Your task to perform on an android device: Go to wifi settings Image 0: 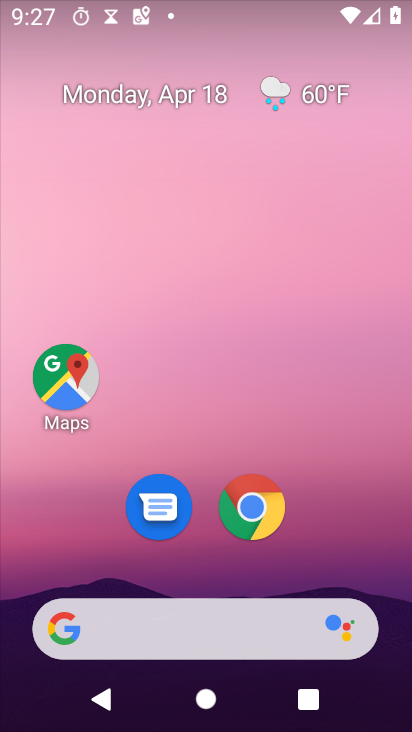
Step 0: drag from (310, 553) to (376, 8)
Your task to perform on an android device: Go to wifi settings Image 1: 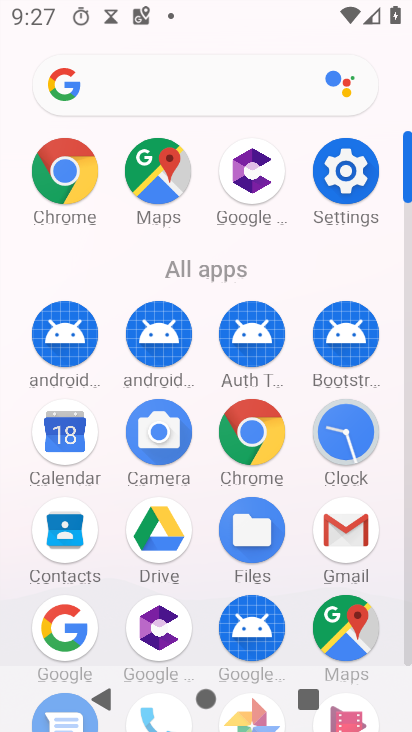
Step 1: click (346, 171)
Your task to perform on an android device: Go to wifi settings Image 2: 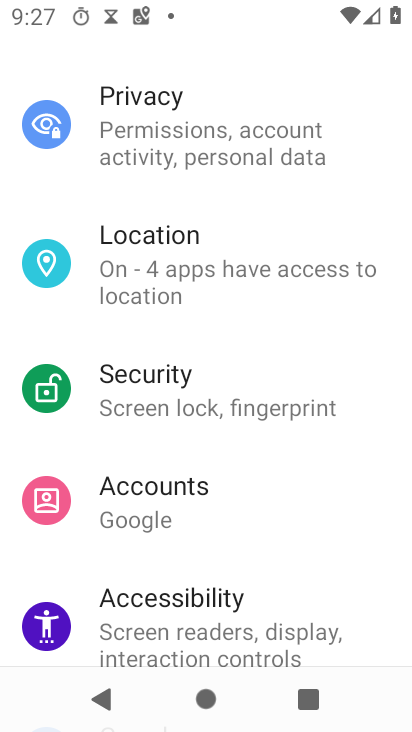
Step 2: drag from (240, 266) to (270, 351)
Your task to perform on an android device: Go to wifi settings Image 3: 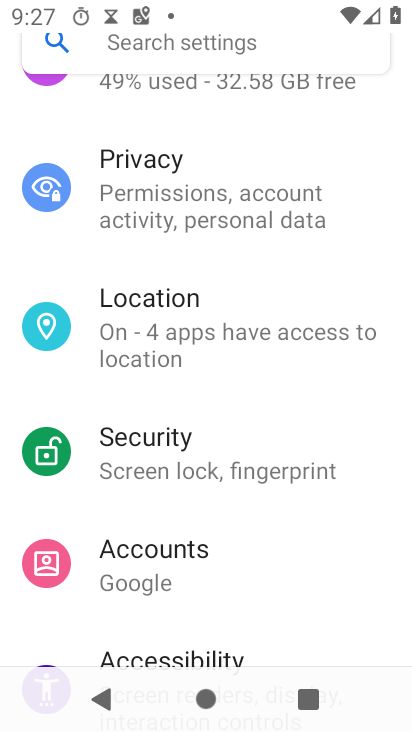
Step 3: drag from (233, 266) to (247, 343)
Your task to perform on an android device: Go to wifi settings Image 4: 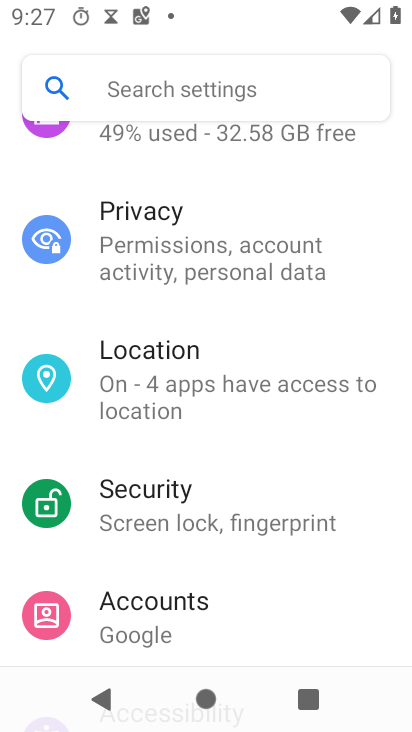
Step 4: drag from (229, 262) to (252, 343)
Your task to perform on an android device: Go to wifi settings Image 5: 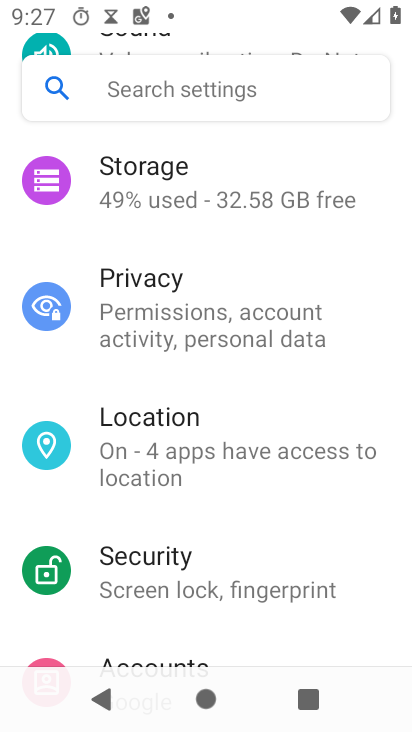
Step 5: drag from (229, 261) to (248, 342)
Your task to perform on an android device: Go to wifi settings Image 6: 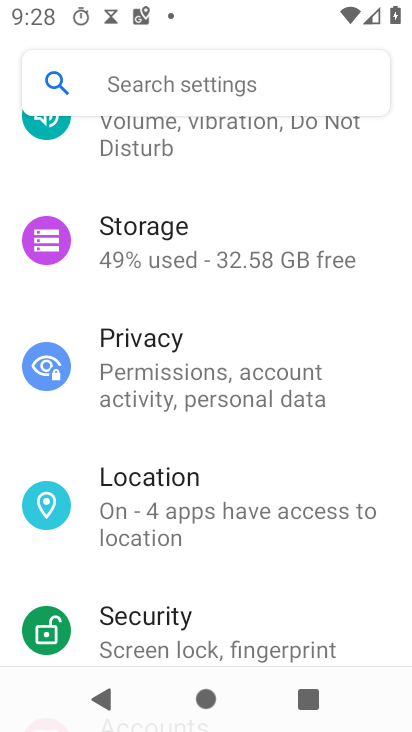
Step 6: drag from (245, 267) to (274, 367)
Your task to perform on an android device: Go to wifi settings Image 7: 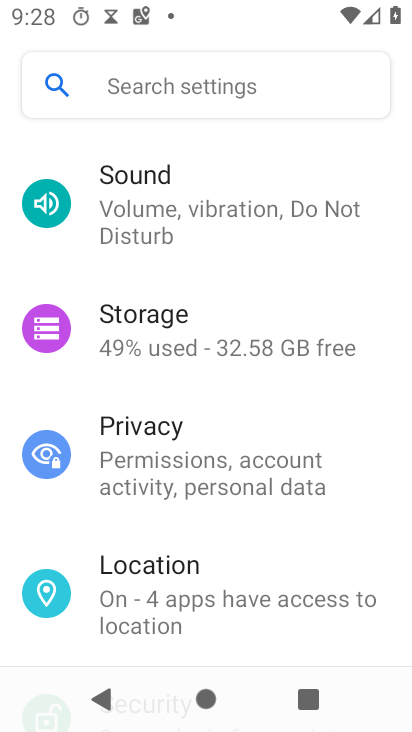
Step 7: drag from (249, 274) to (288, 378)
Your task to perform on an android device: Go to wifi settings Image 8: 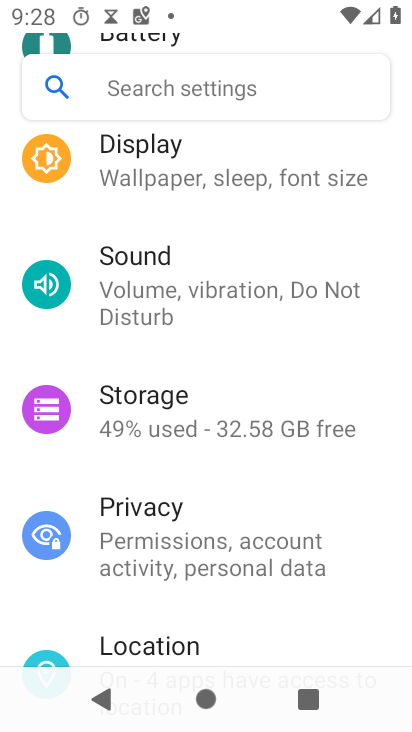
Step 8: drag from (260, 259) to (298, 360)
Your task to perform on an android device: Go to wifi settings Image 9: 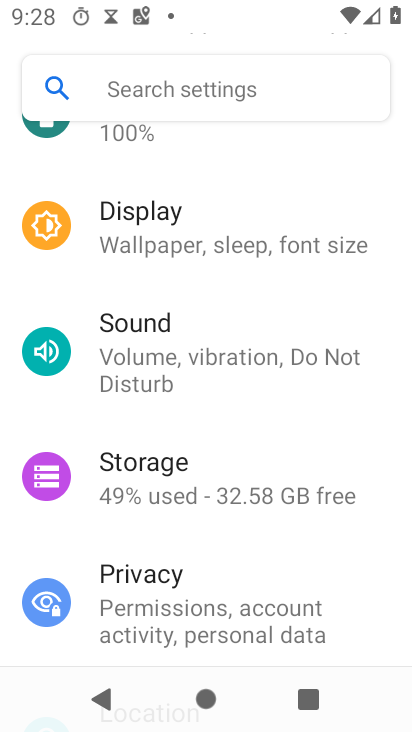
Step 9: drag from (280, 292) to (309, 370)
Your task to perform on an android device: Go to wifi settings Image 10: 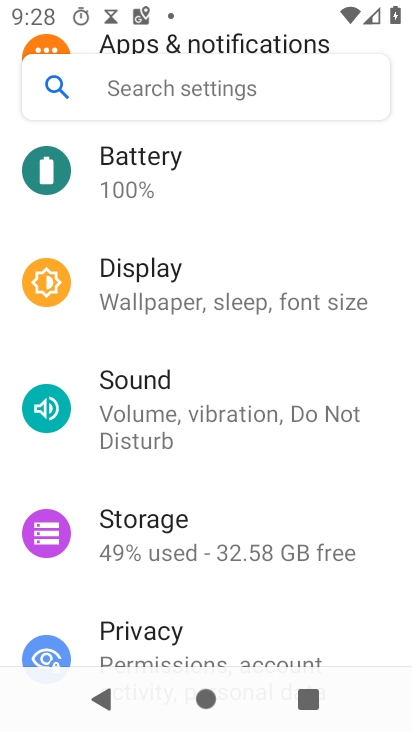
Step 10: drag from (275, 266) to (318, 383)
Your task to perform on an android device: Go to wifi settings Image 11: 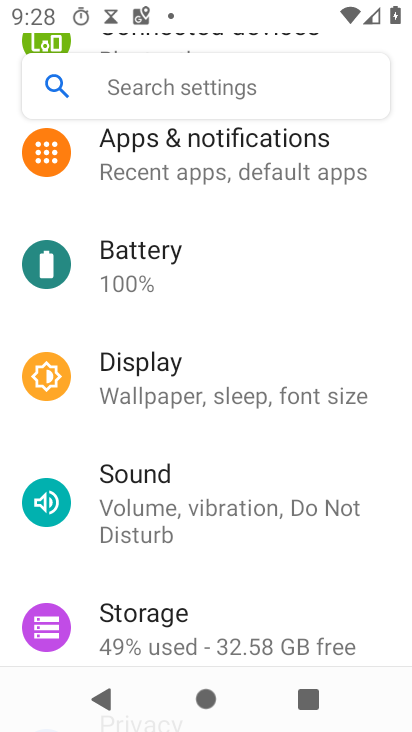
Step 11: drag from (237, 273) to (263, 360)
Your task to perform on an android device: Go to wifi settings Image 12: 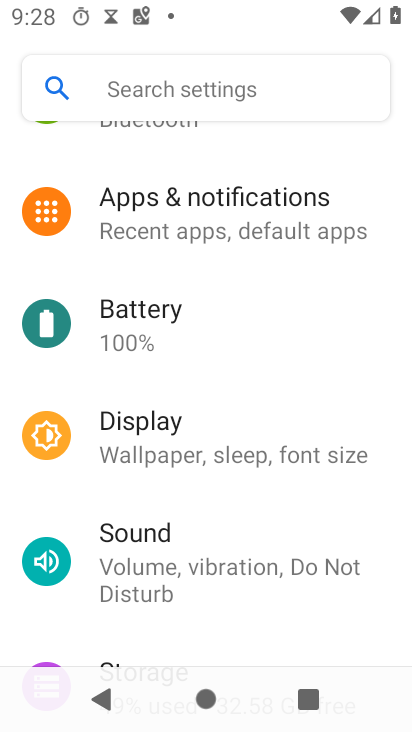
Step 12: drag from (225, 251) to (252, 361)
Your task to perform on an android device: Go to wifi settings Image 13: 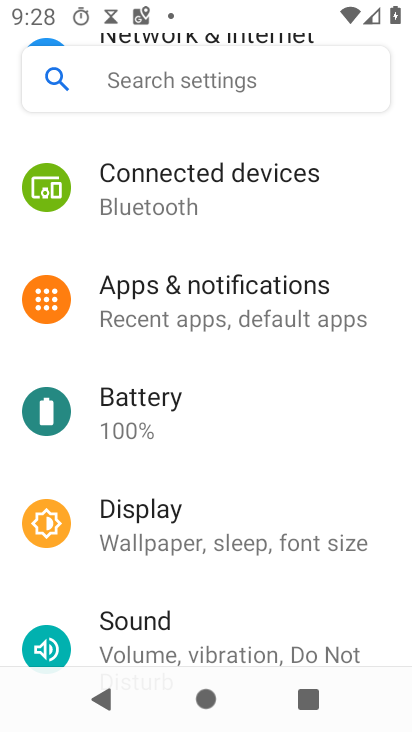
Step 13: drag from (239, 291) to (264, 378)
Your task to perform on an android device: Go to wifi settings Image 14: 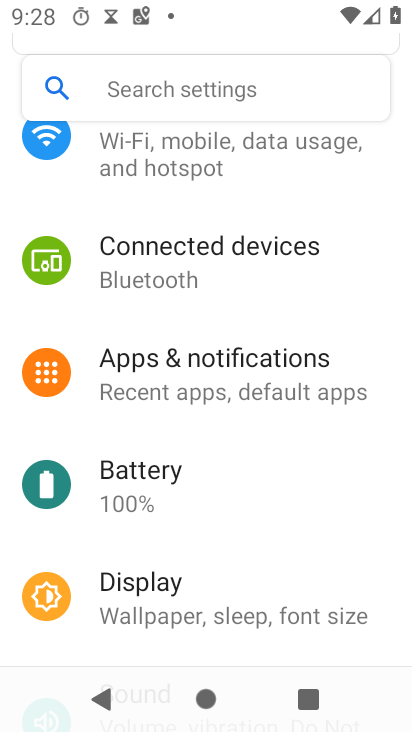
Step 14: drag from (227, 260) to (267, 403)
Your task to perform on an android device: Go to wifi settings Image 15: 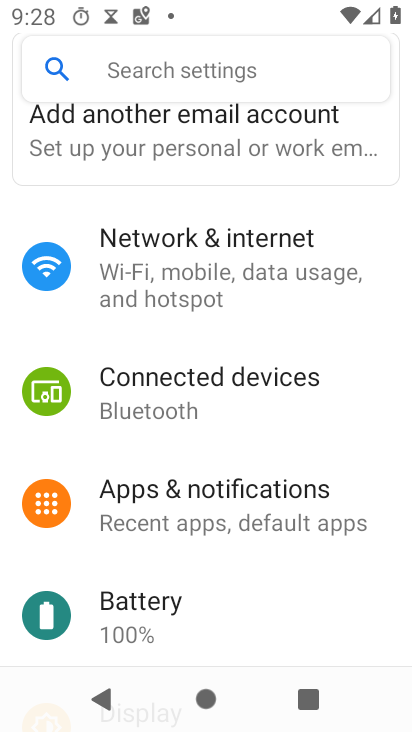
Step 15: click (205, 272)
Your task to perform on an android device: Go to wifi settings Image 16: 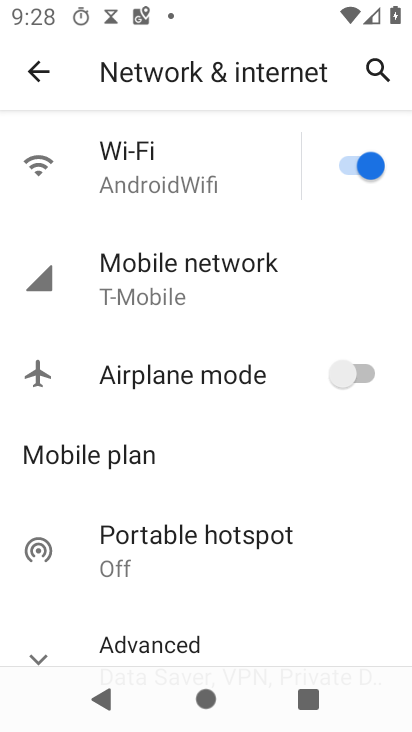
Step 16: click (201, 160)
Your task to perform on an android device: Go to wifi settings Image 17: 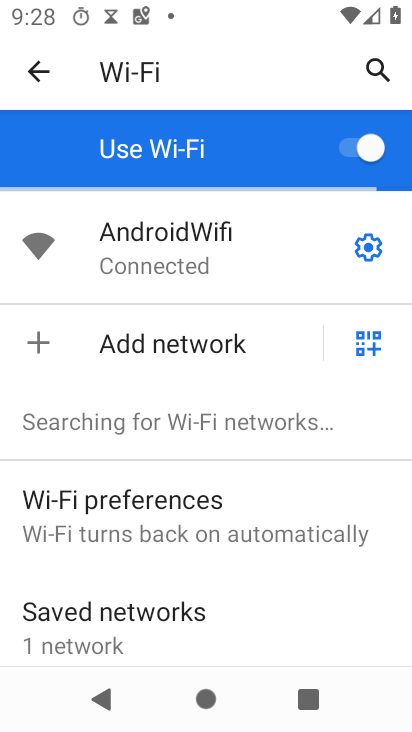
Step 17: click (372, 250)
Your task to perform on an android device: Go to wifi settings Image 18: 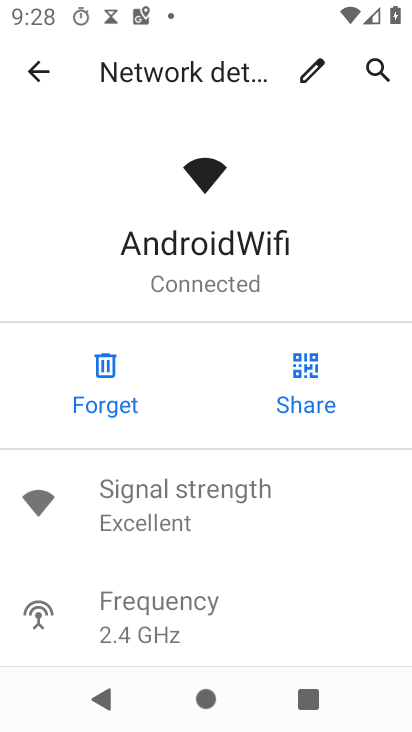
Step 18: task complete